Your task to perform on an android device: Open accessibility settings Image 0: 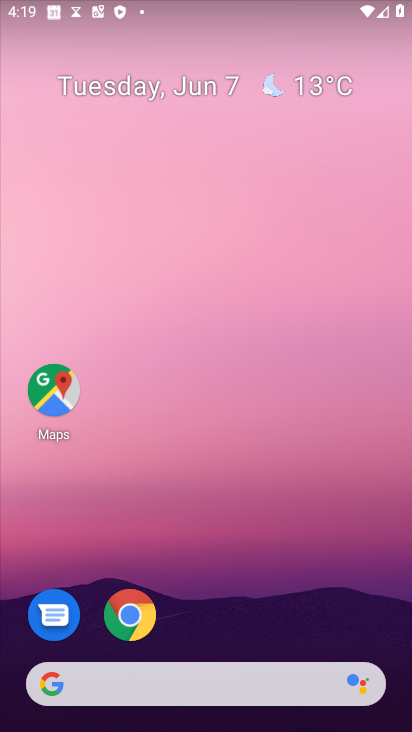
Step 0: drag from (254, 687) to (157, 64)
Your task to perform on an android device: Open accessibility settings Image 1: 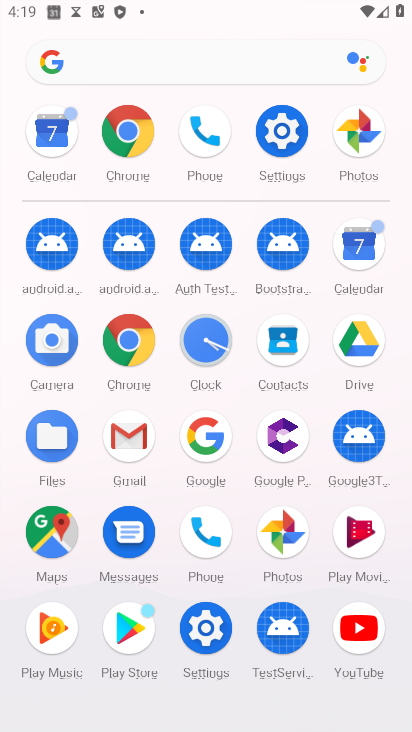
Step 1: drag from (207, 626) to (194, 659)
Your task to perform on an android device: Open accessibility settings Image 2: 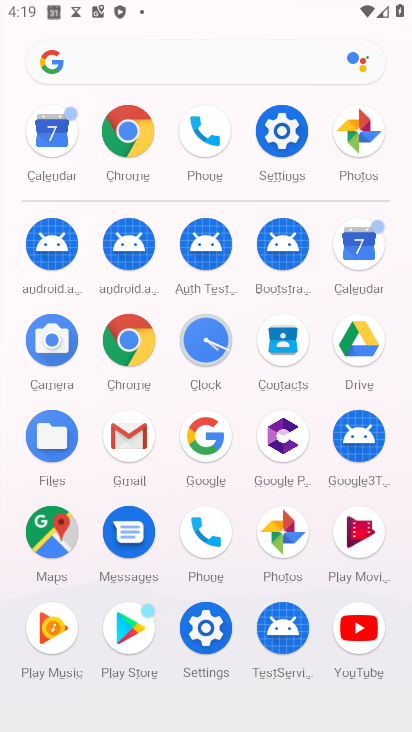
Step 2: click (204, 627)
Your task to perform on an android device: Open accessibility settings Image 3: 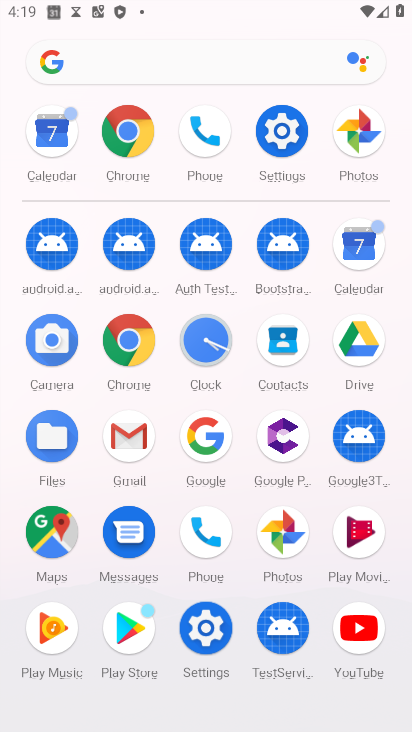
Step 3: click (204, 615)
Your task to perform on an android device: Open accessibility settings Image 4: 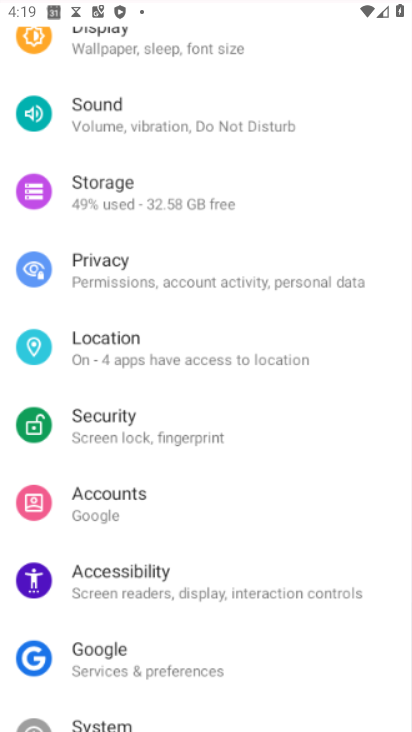
Step 4: click (204, 620)
Your task to perform on an android device: Open accessibility settings Image 5: 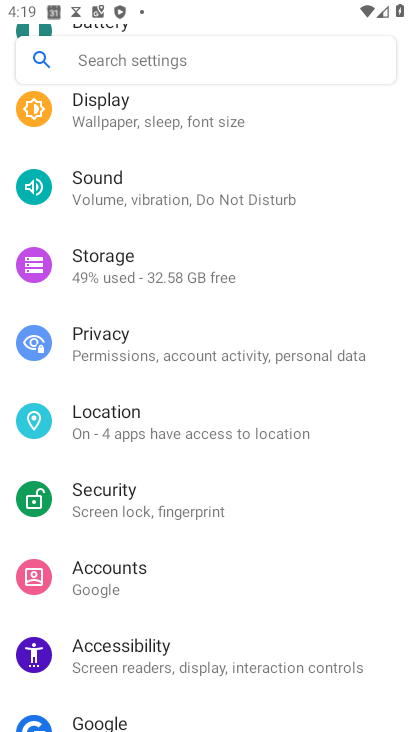
Step 5: click (148, 647)
Your task to perform on an android device: Open accessibility settings Image 6: 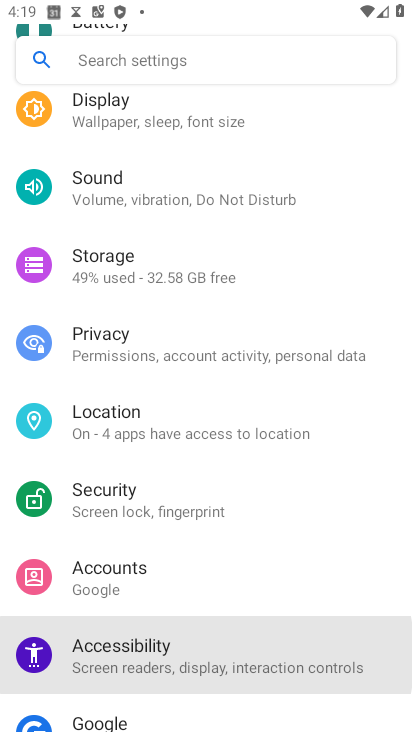
Step 6: task complete